Your task to perform on an android device: Open privacy settings Image 0: 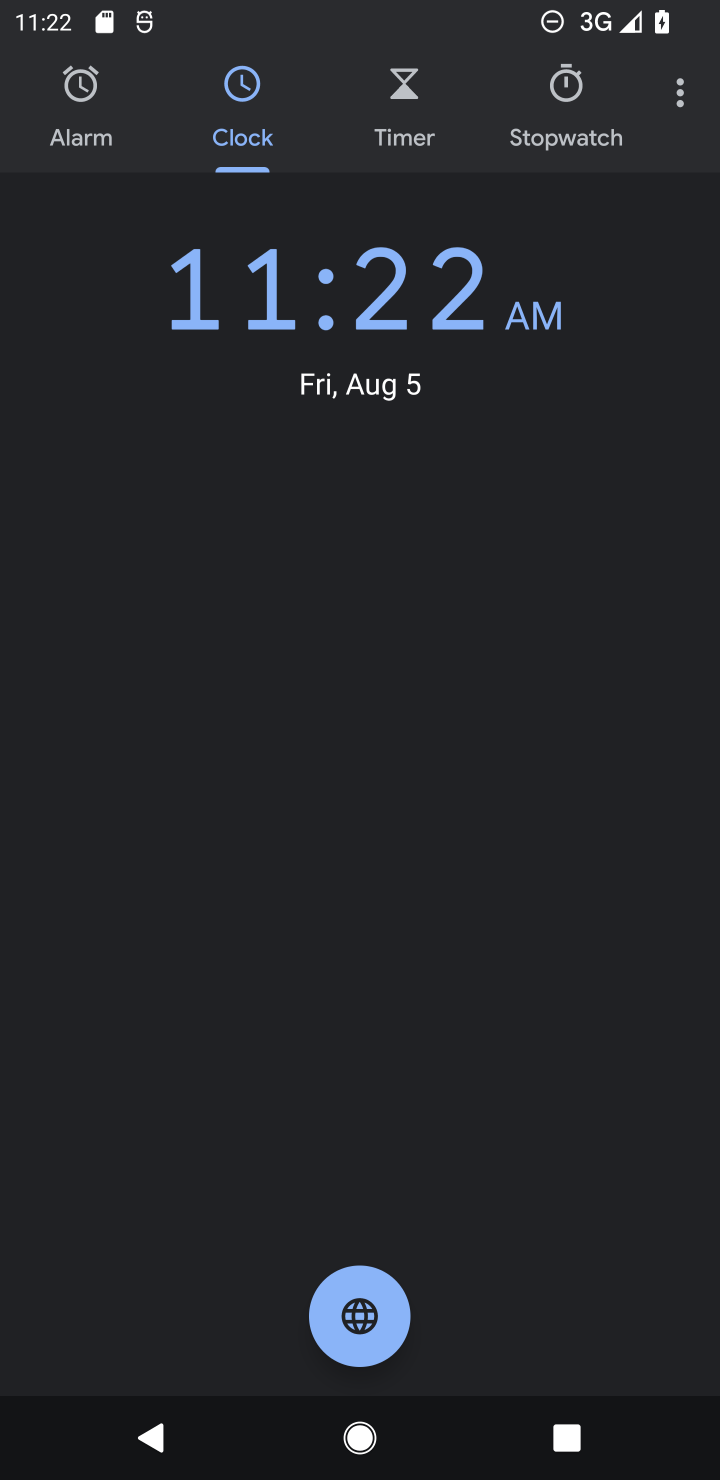
Step 0: press home button
Your task to perform on an android device: Open privacy settings Image 1: 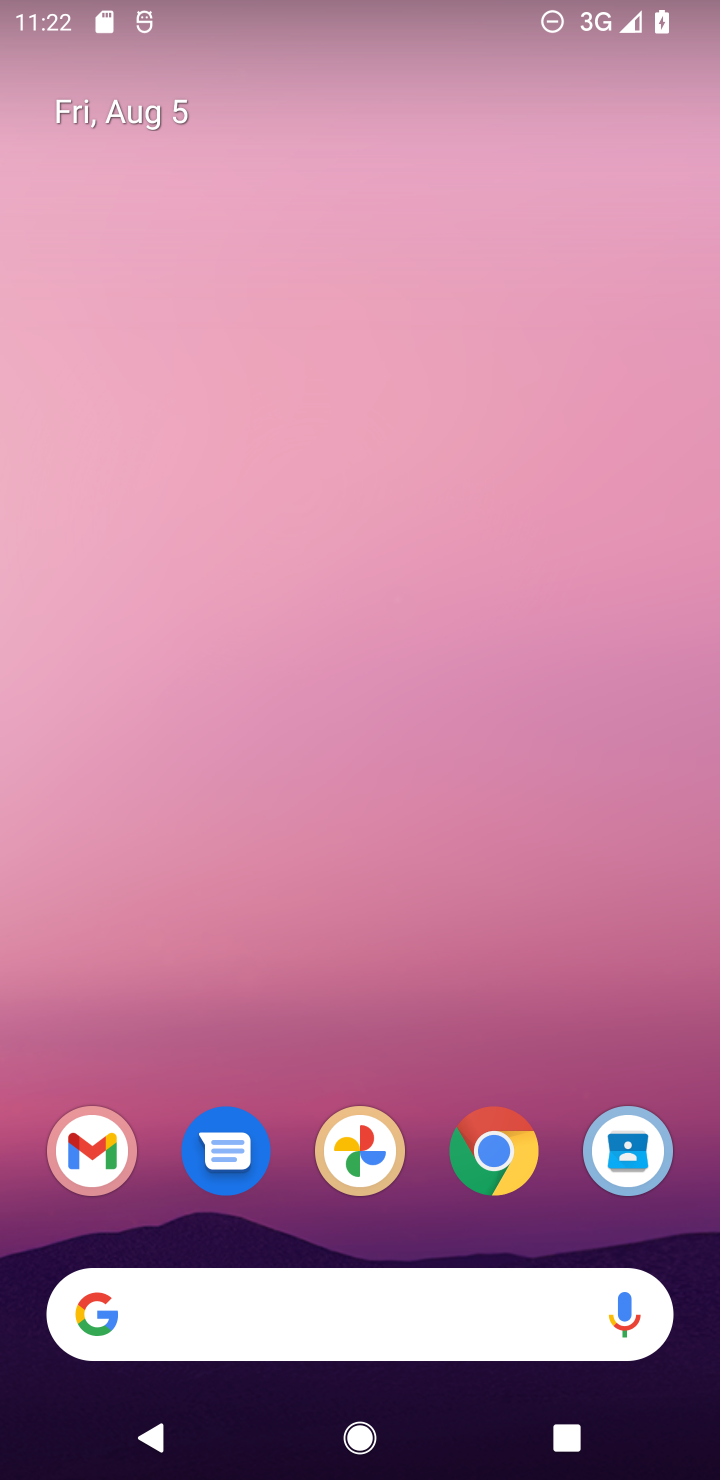
Step 1: click (420, 321)
Your task to perform on an android device: Open privacy settings Image 2: 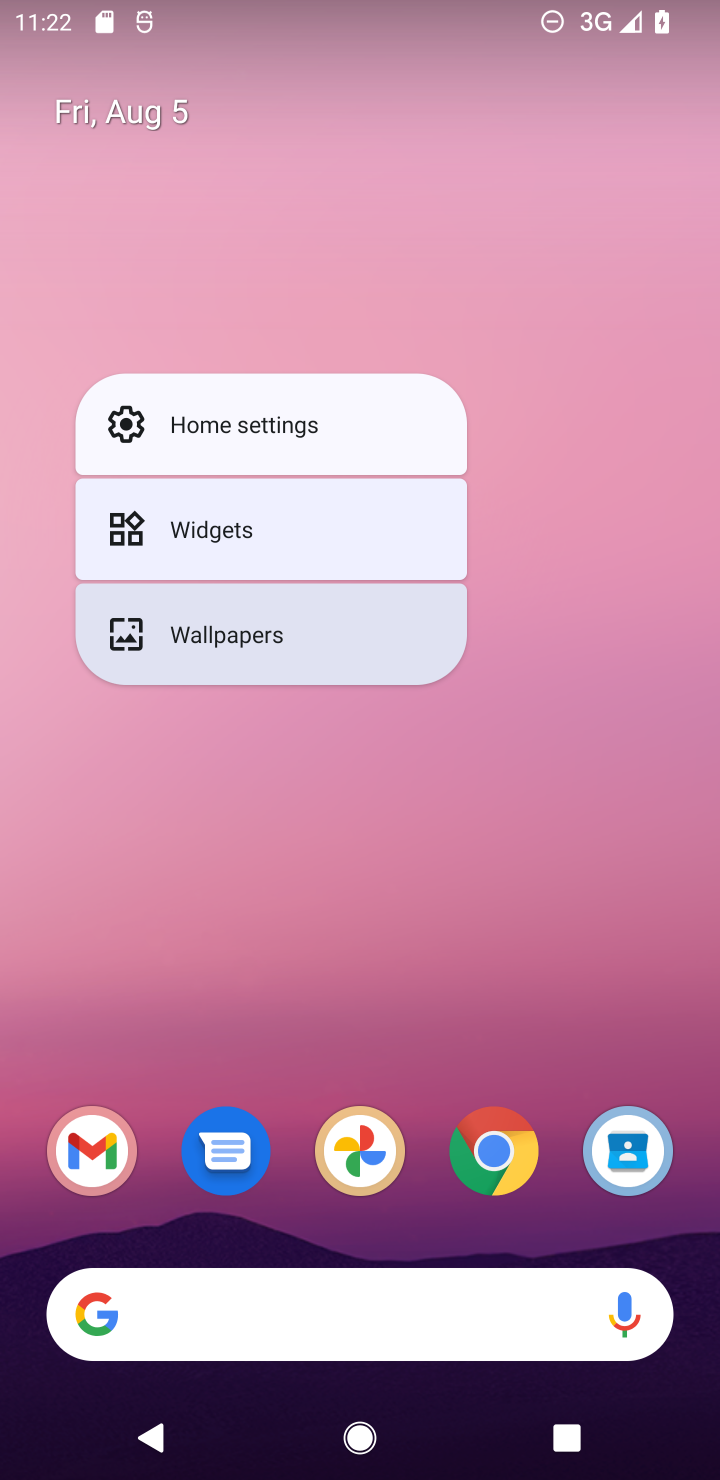
Step 2: click (319, 1212)
Your task to perform on an android device: Open privacy settings Image 3: 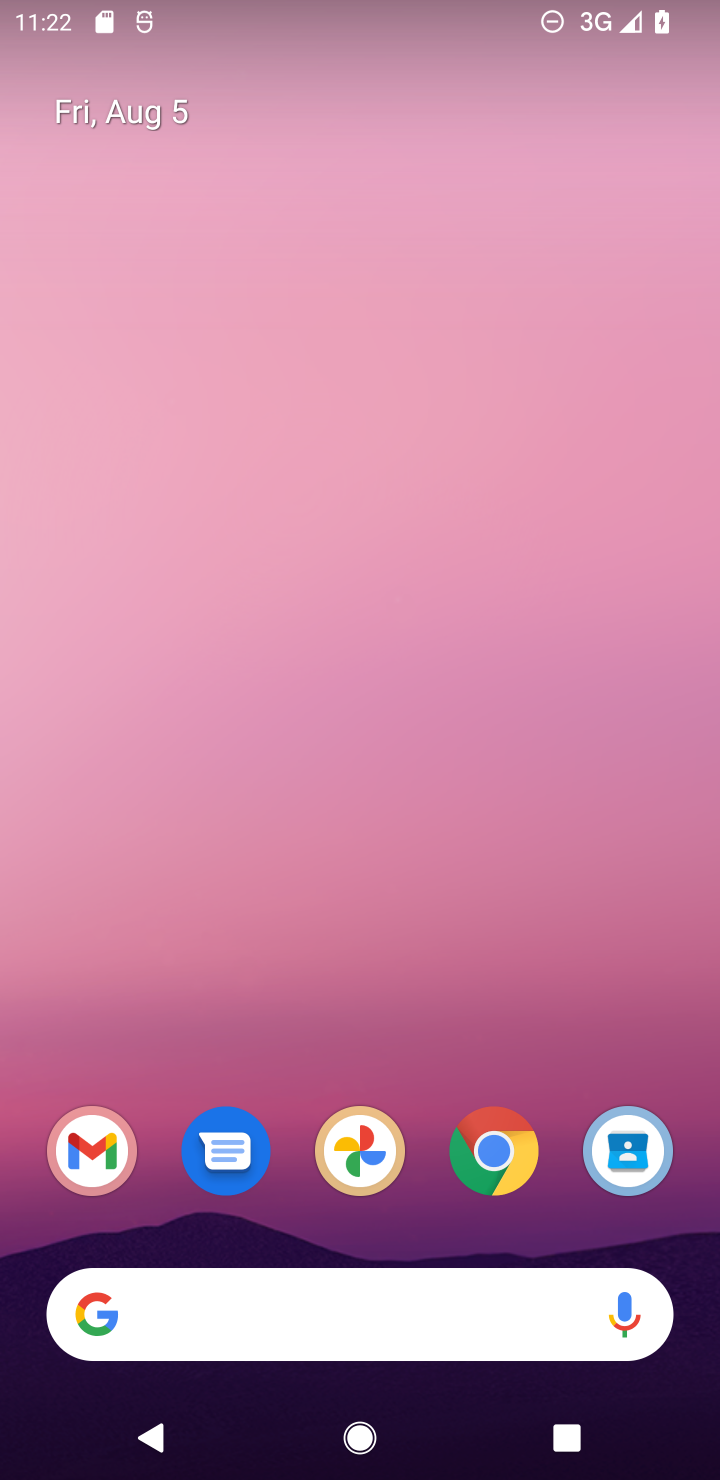
Step 3: drag from (319, 1160) to (411, 65)
Your task to perform on an android device: Open privacy settings Image 4: 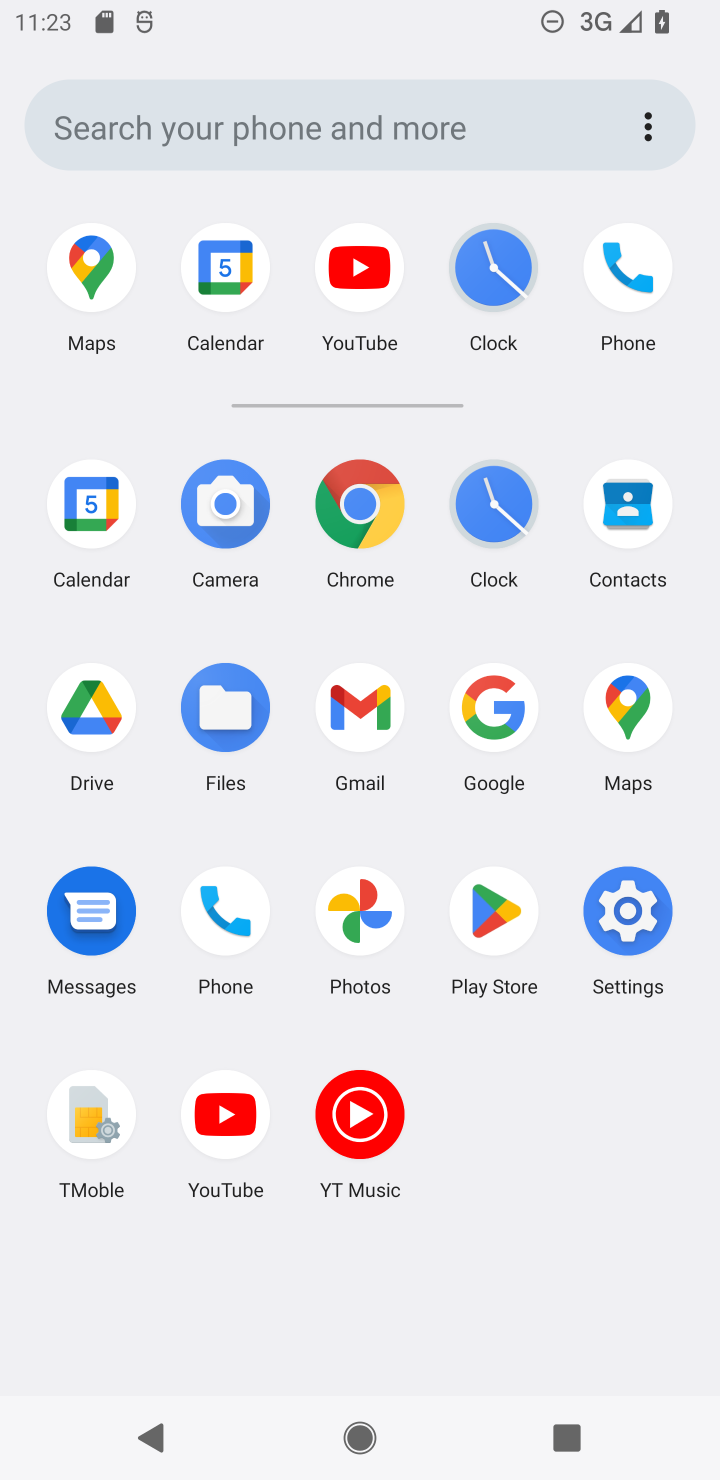
Step 4: click (637, 926)
Your task to perform on an android device: Open privacy settings Image 5: 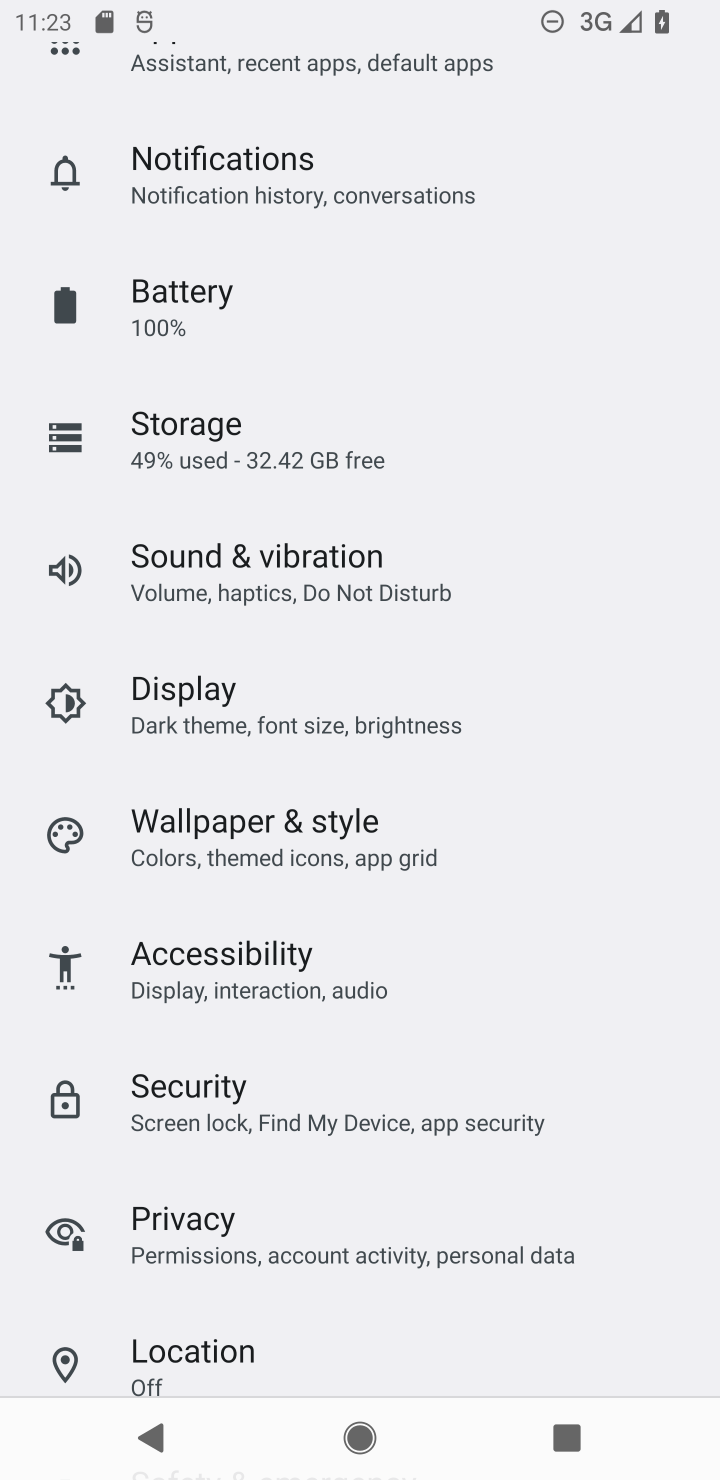
Step 5: click (176, 1223)
Your task to perform on an android device: Open privacy settings Image 6: 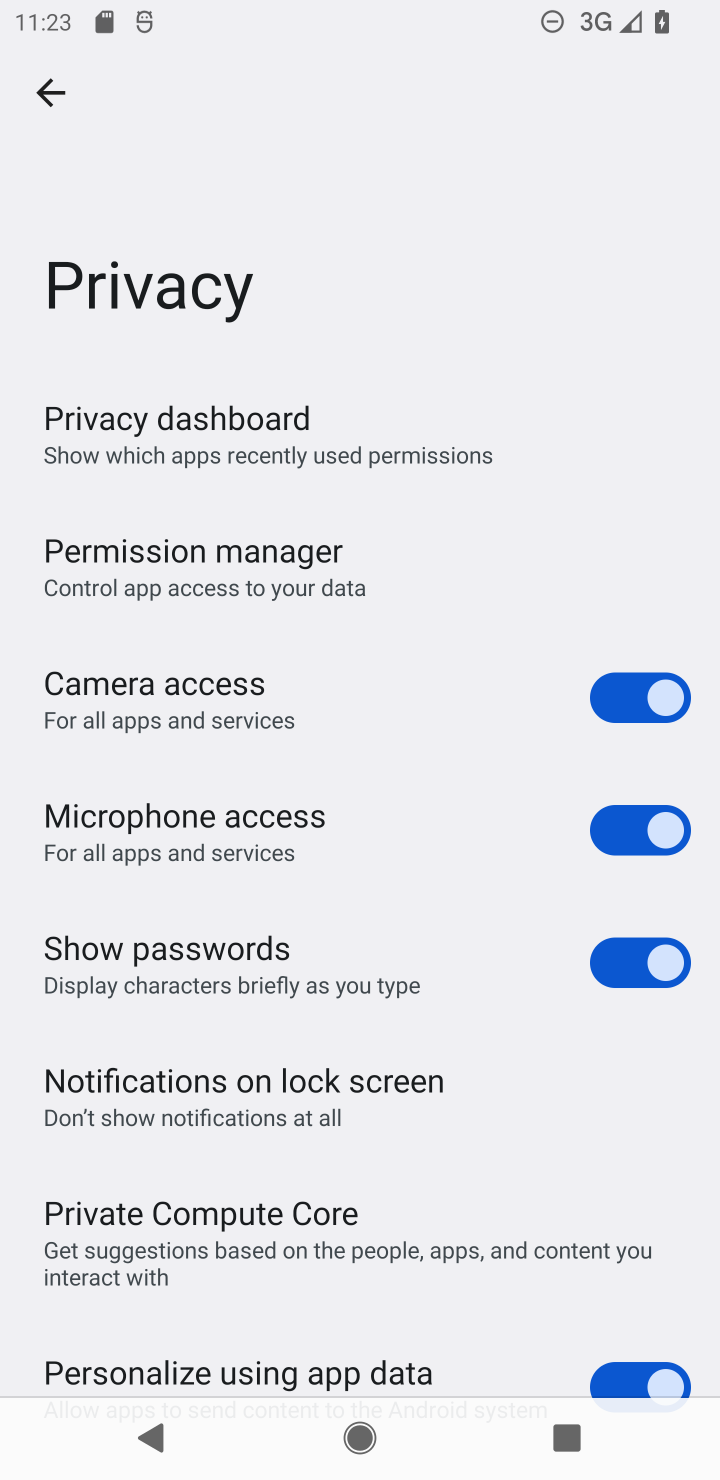
Step 6: task complete